Your task to perform on an android device: Go to sound settings Image 0: 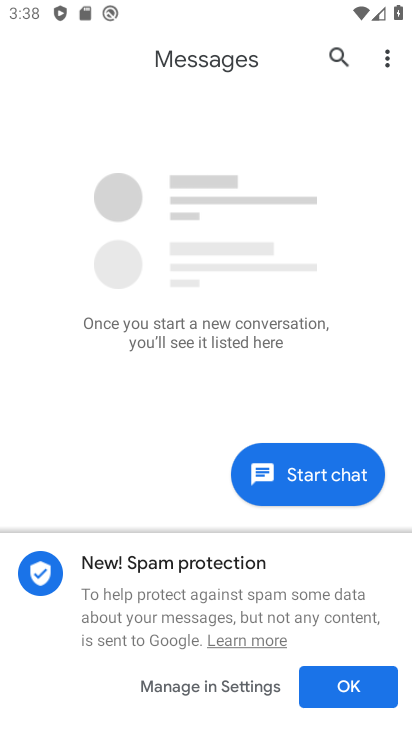
Step 0: press home button
Your task to perform on an android device: Go to sound settings Image 1: 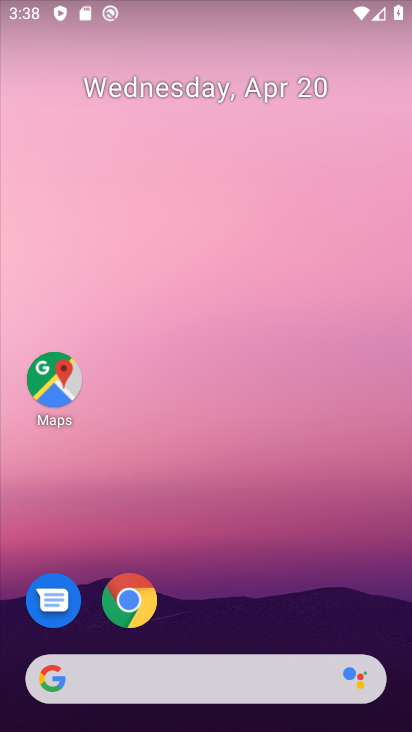
Step 1: drag from (248, 565) to (241, 90)
Your task to perform on an android device: Go to sound settings Image 2: 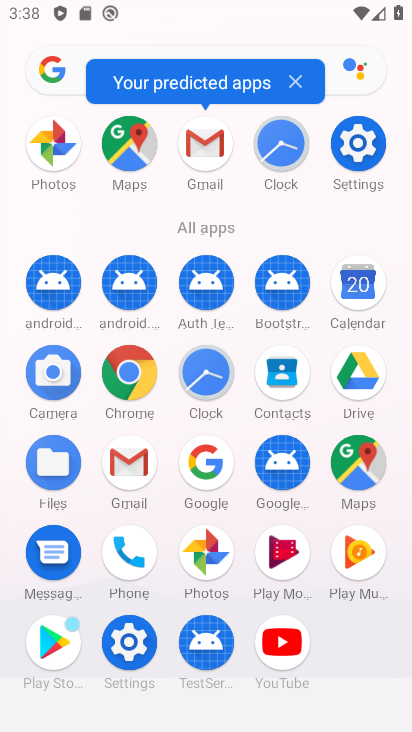
Step 2: click (358, 143)
Your task to perform on an android device: Go to sound settings Image 3: 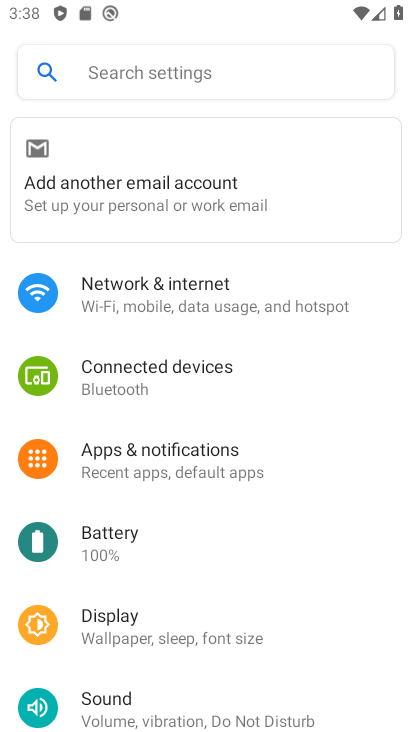
Step 3: click (219, 694)
Your task to perform on an android device: Go to sound settings Image 4: 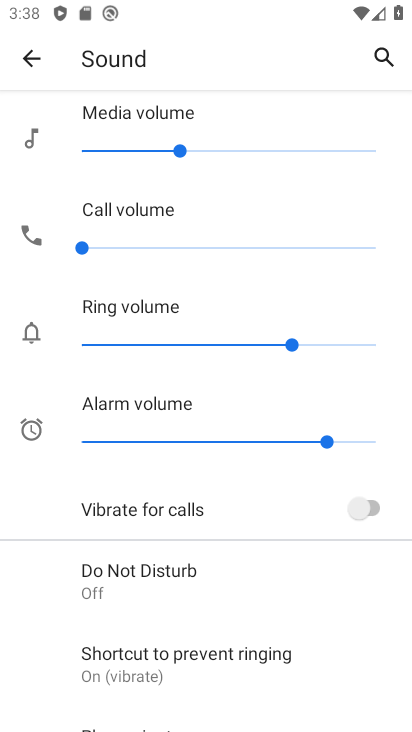
Step 4: task complete